Your task to perform on an android device: Go to settings Image 0: 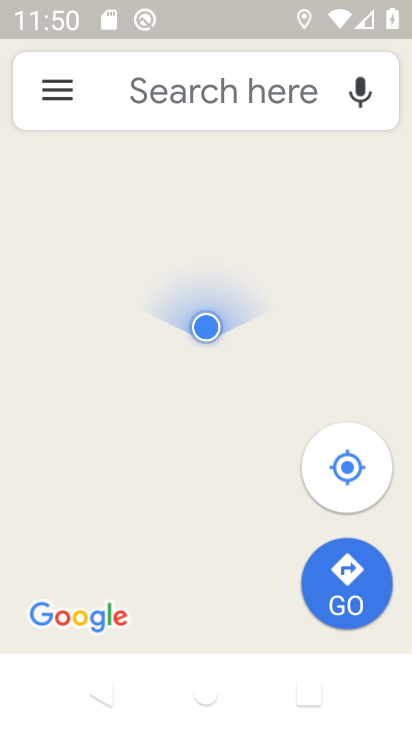
Step 0: press home button
Your task to perform on an android device: Go to settings Image 1: 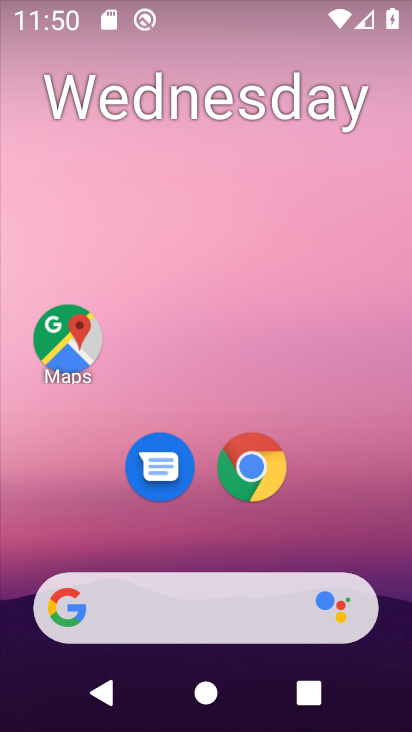
Step 1: drag from (351, 534) to (238, 5)
Your task to perform on an android device: Go to settings Image 2: 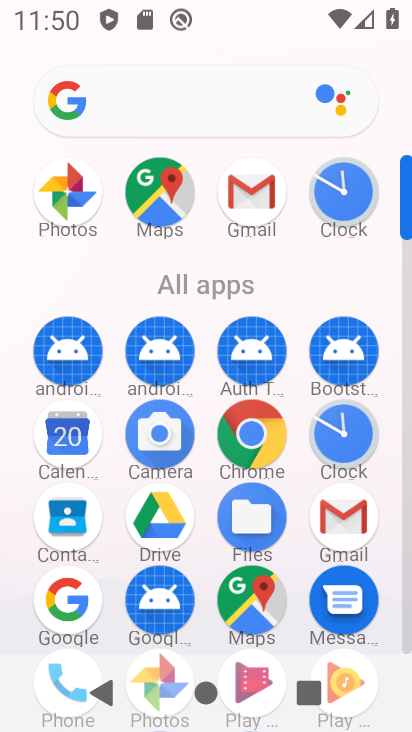
Step 2: drag from (202, 284) to (176, 5)
Your task to perform on an android device: Go to settings Image 3: 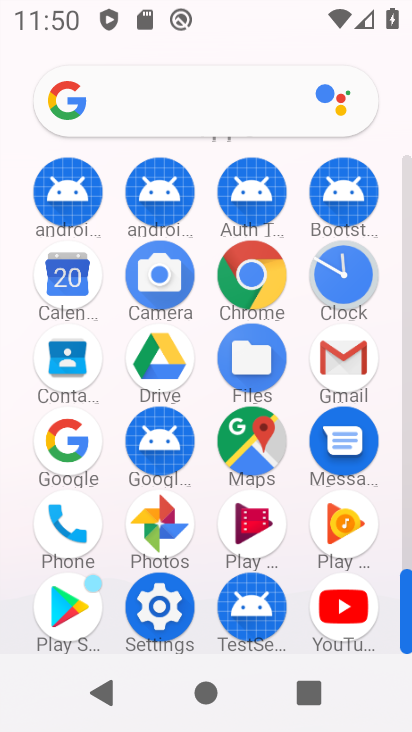
Step 3: click (154, 608)
Your task to perform on an android device: Go to settings Image 4: 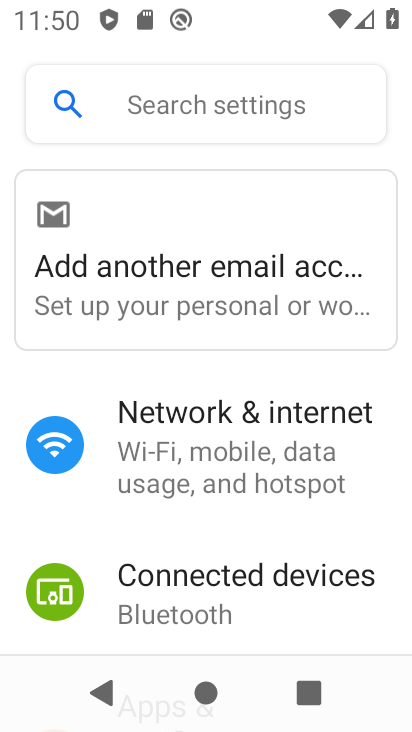
Step 4: task complete